Your task to perform on an android device: Open accessibility settings Image 0: 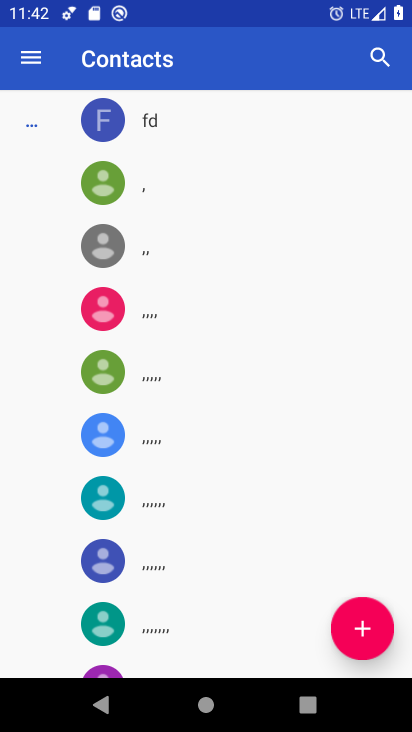
Step 0: press home button
Your task to perform on an android device: Open accessibility settings Image 1: 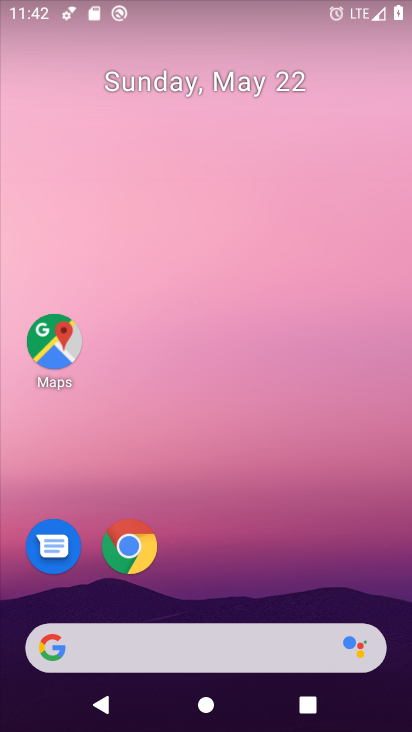
Step 1: drag from (266, 631) to (255, 124)
Your task to perform on an android device: Open accessibility settings Image 2: 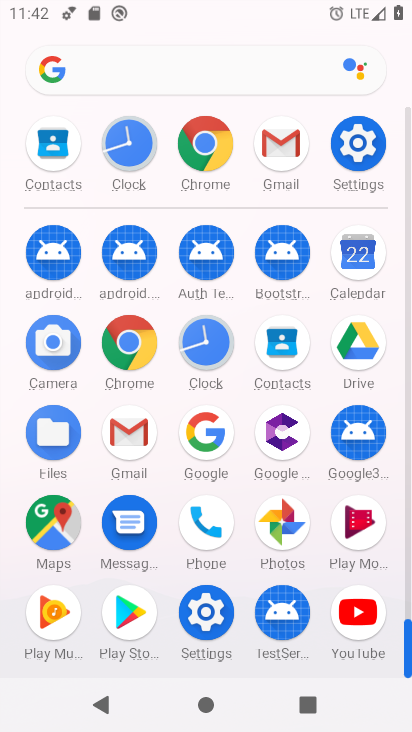
Step 2: click (370, 150)
Your task to perform on an android device: Open accessibility settings Image 3: 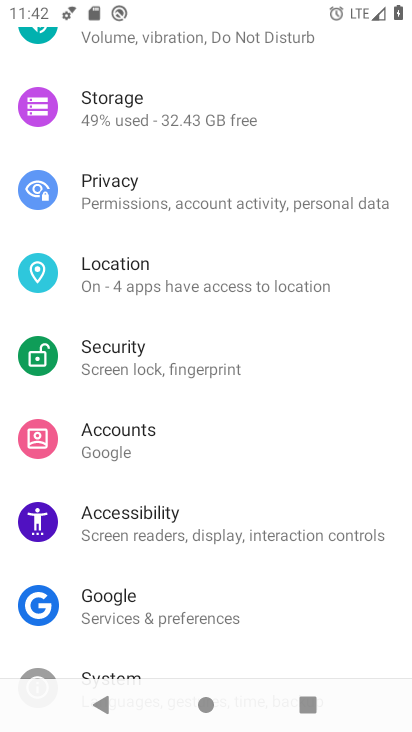
Step 3: drag from (252, 408) to (272, 278)
Your task to perform on an android device: Open accessibility settings Image 4: 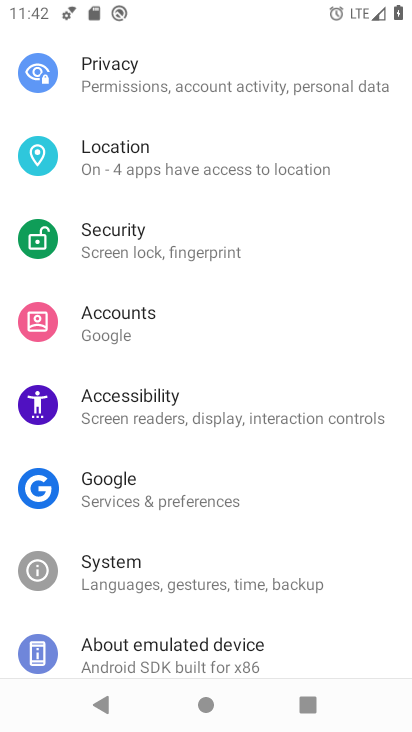
Step 4: click (238, 405)
Your task to perform on an android device: Open accessibility settings Image 5: 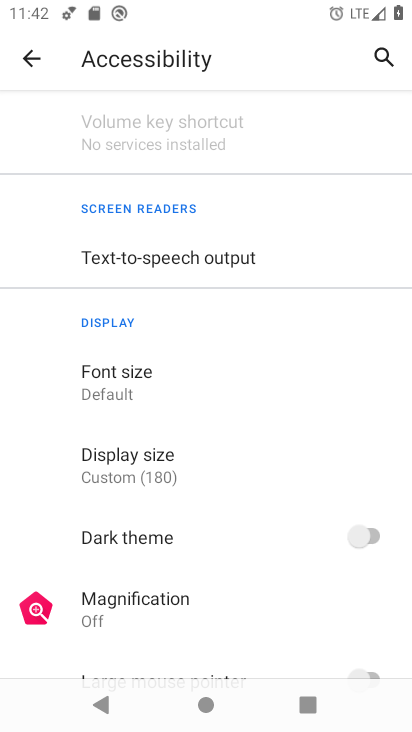
Step 5: task complete